Your task to perform on an android device: Go to Yahoo.com Image 0: 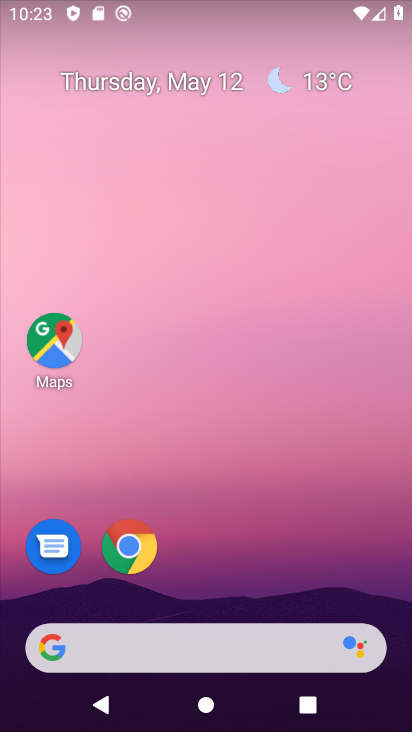
Step 0: drag from (185, 676) to (190, 147)
Your task to perform on an android device: Go to Yahoo.com Image 1: 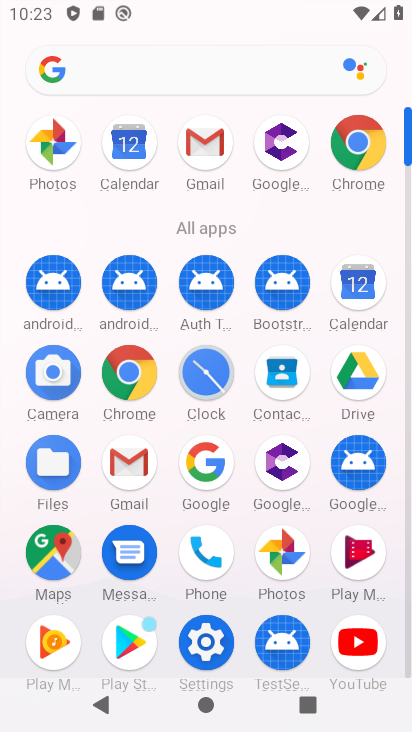
Step 1: click (357, 139)
Your task to perform on an android device: Go to Yahoo.com Image 2: 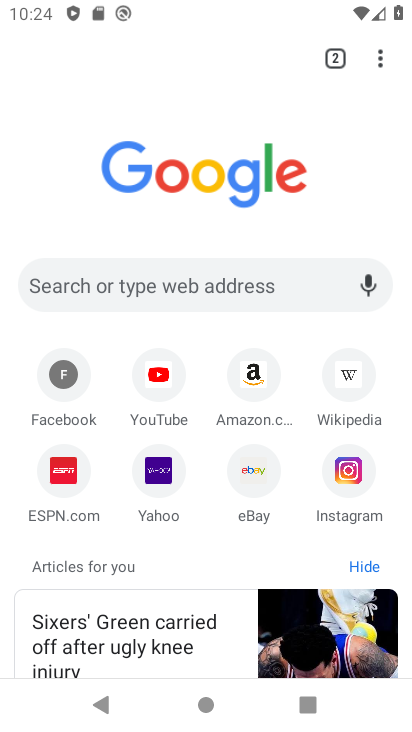
Step 2: click (159, 481)
Your task to perform on an android device: Go to Yahoo.com Image 3: 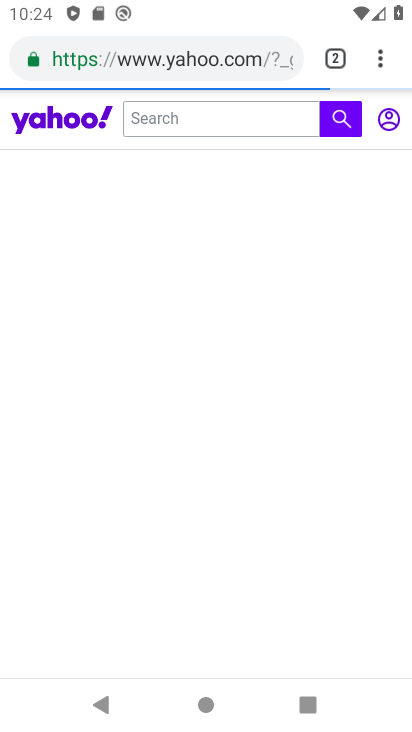
Step 3: task complete